Your task to perform on an android device: open the mobile data screen to see how much data has been used Image 0: 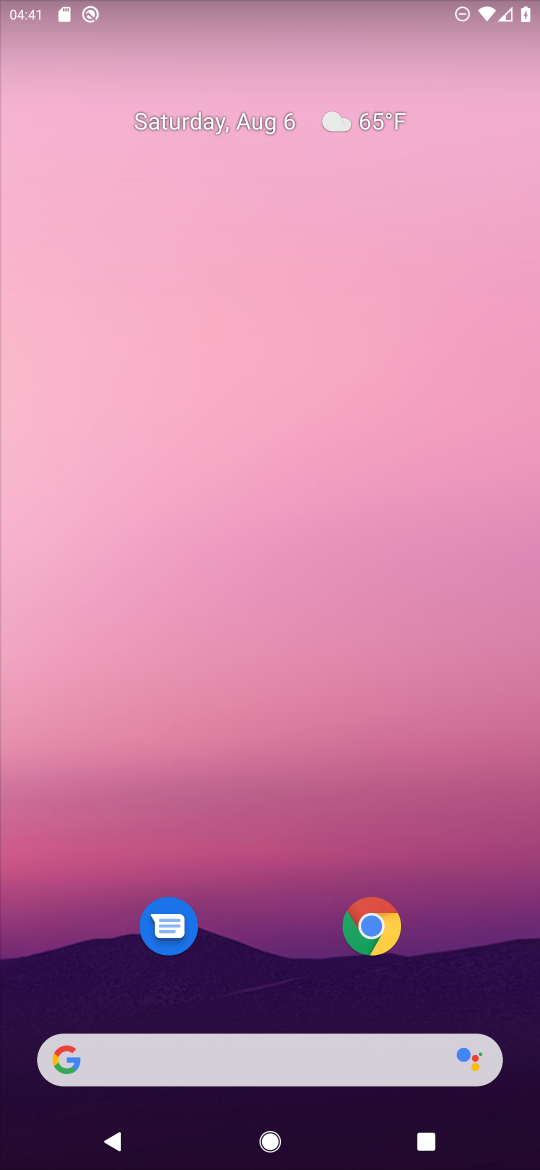
Step 0: drag from (309, 901) to (236, 230)
Your task to perform on an android device: open the mobile data screen to see how much data has been used Image 1: 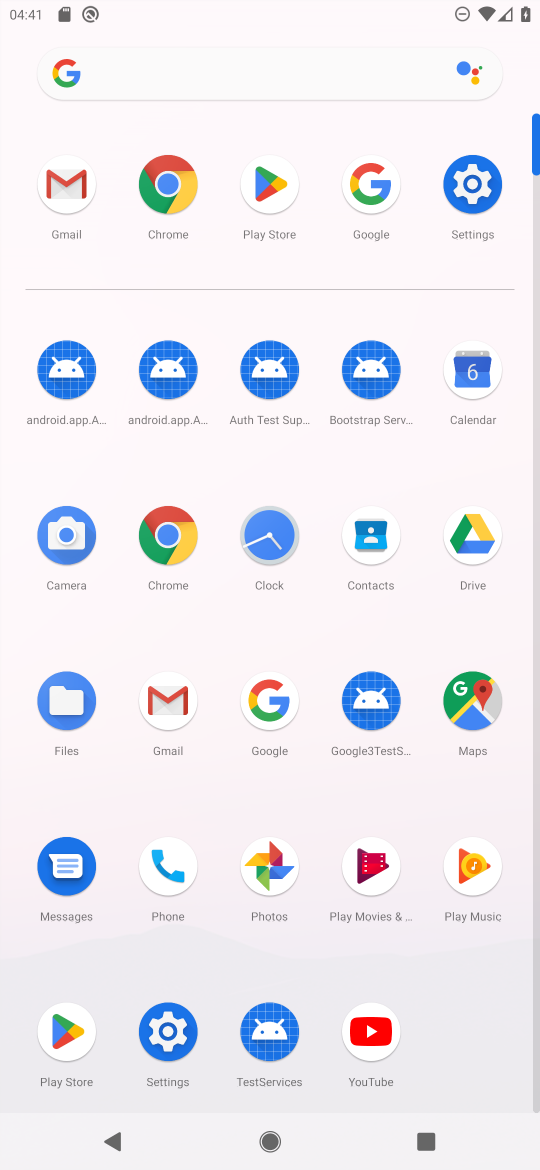
Step 1: click (445, 194)
Your task to perform on an android device: open the mobile data screen to see how much data has been used Image 2: 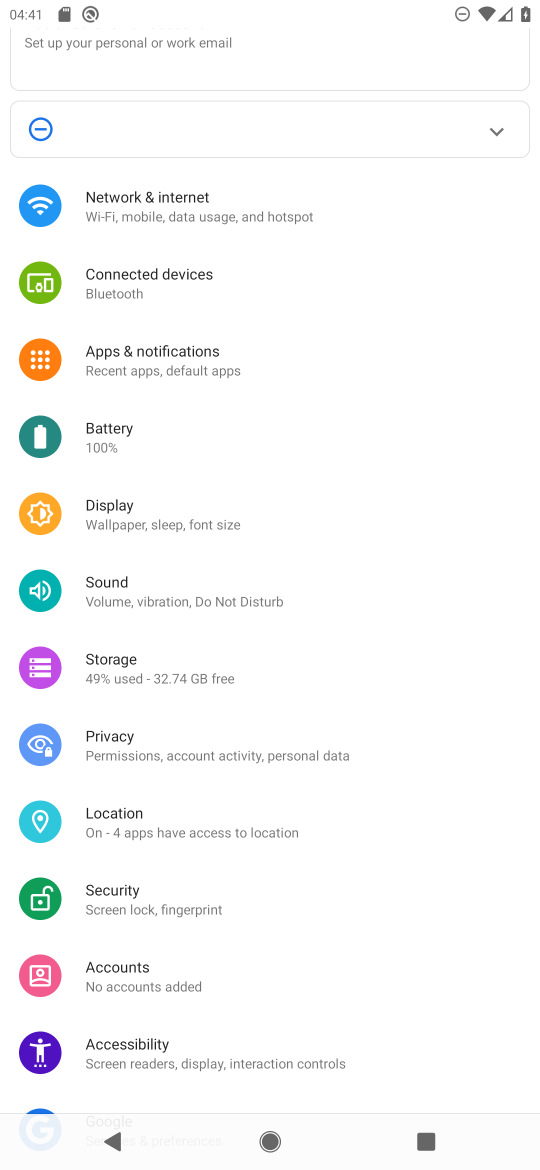
Step 2: click (140, 224)
Your task to perform on an android device: open the mobile data screen to see how much data has been used Image 3: 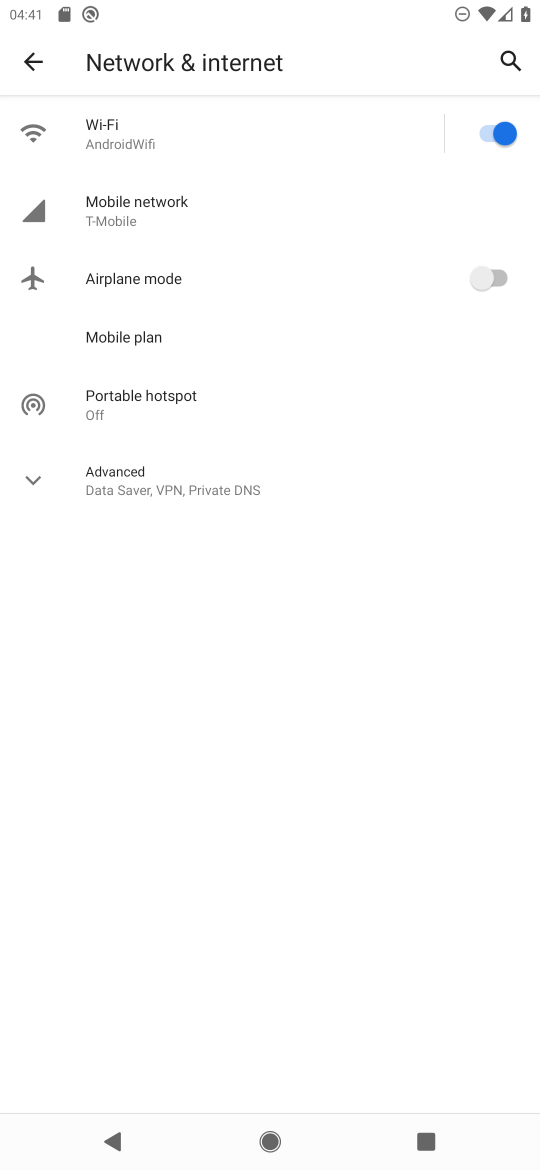
Step 3: click (175, 214)
Your task to perform on an android device: open the mobile data screen to see how much data has been used Image 4: 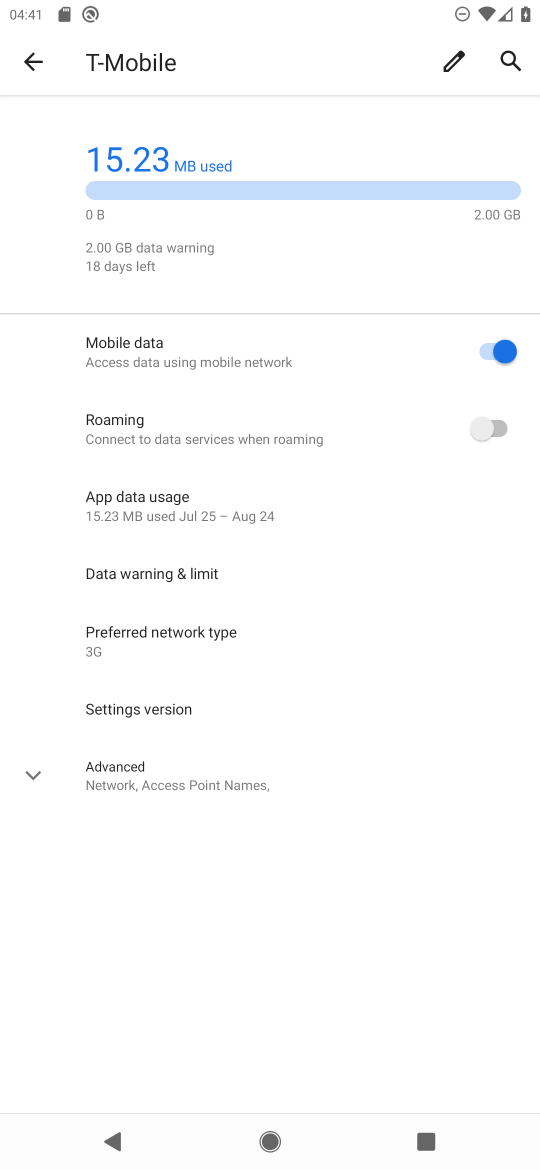
Step 4: click (216, 517)
Your task to perform on an android device: open the mobile data screen to see how much data has been used Image 5: 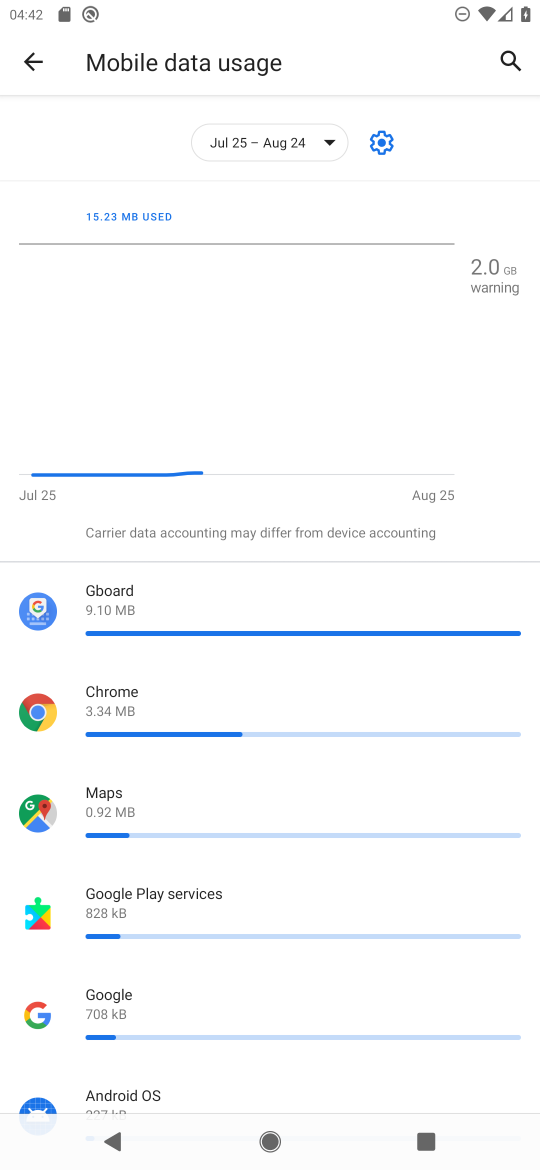
Step 5: task complete